Your task to perform on an android device: Go to network settings Image 0: 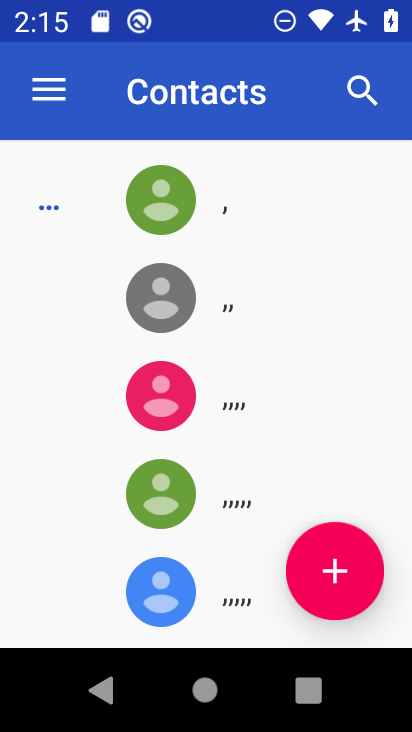
Step 0: press home button
Your task to perform on an android device: Go to network settings Image 1: 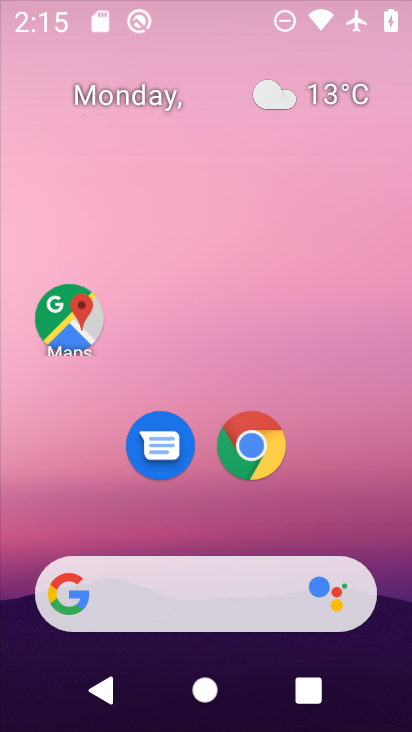
Step 1: drag from (394, 644) to (323, 143)
Your task to perform on an android device: Go to network settings Image 2: 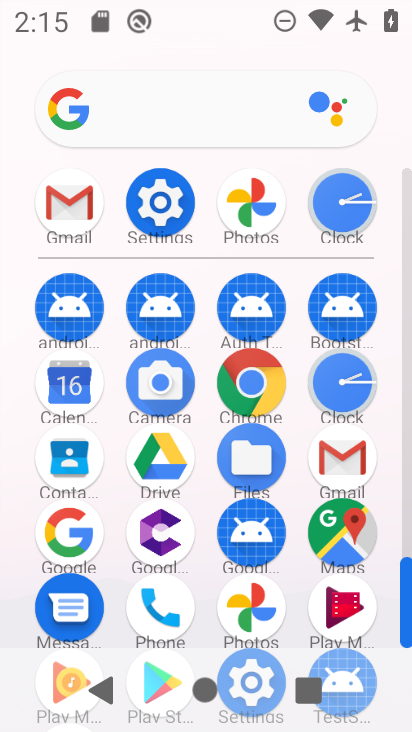
Step 2: click (129, 215)
Your task to perform on an android device: Go to network settings Image 3: 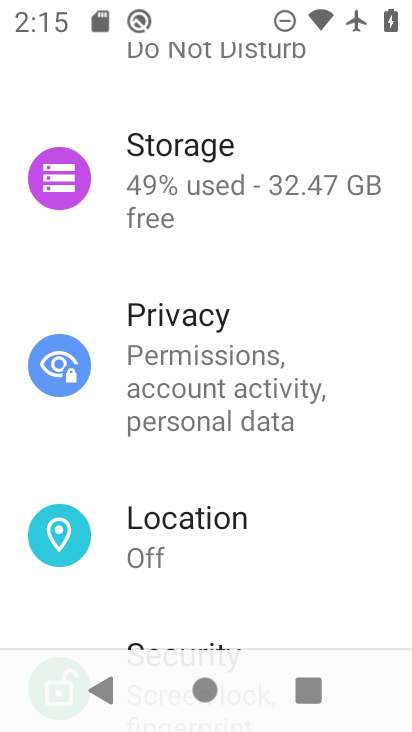
Step 3: drag from (158, 210) to (232, 672)
Your task to perform on an android device: Go to network settings Image 4: 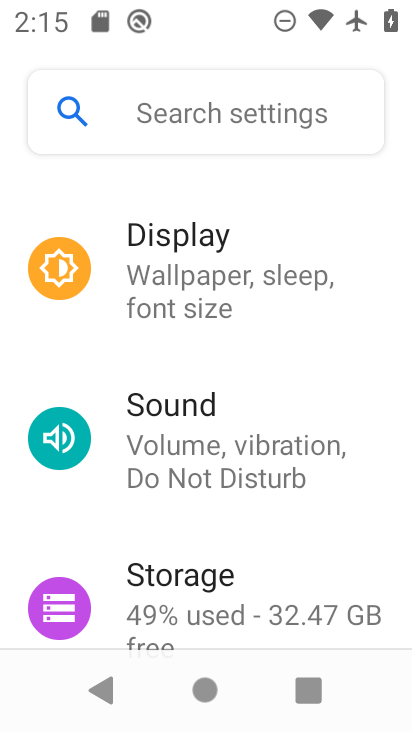
Step 4: drag from (250, 279) to (248, 707)
Your task to perform on an android device: Go to network settings Image 5: 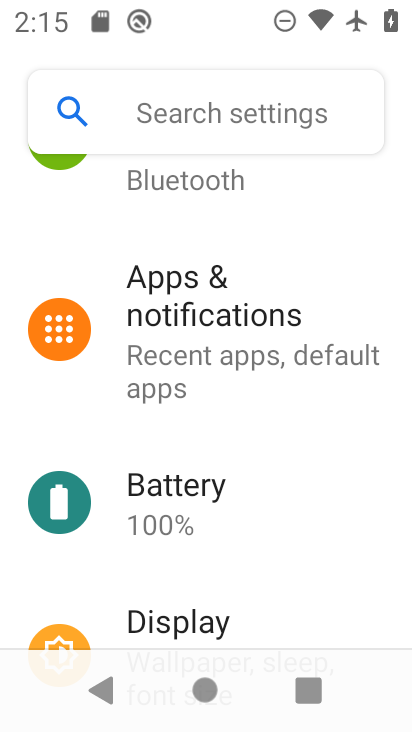
Step 5: drag from (152, 301) to (214, 650)
Your task to perform on an android device: Go to network settings Image 6: 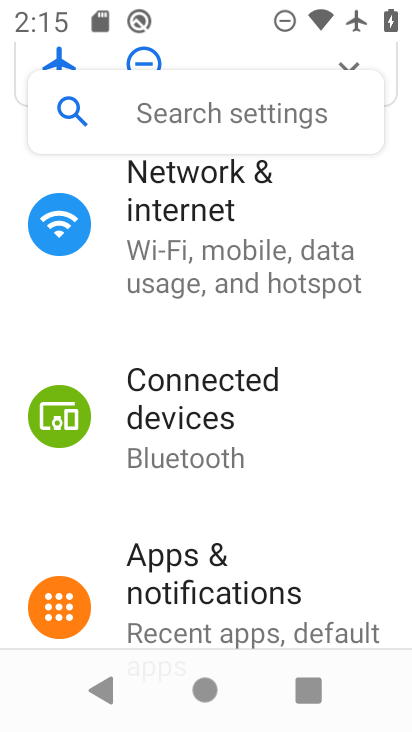
Step 6: click (239, 225)
Your task to perform on an android device: Go to network settings Image 7: 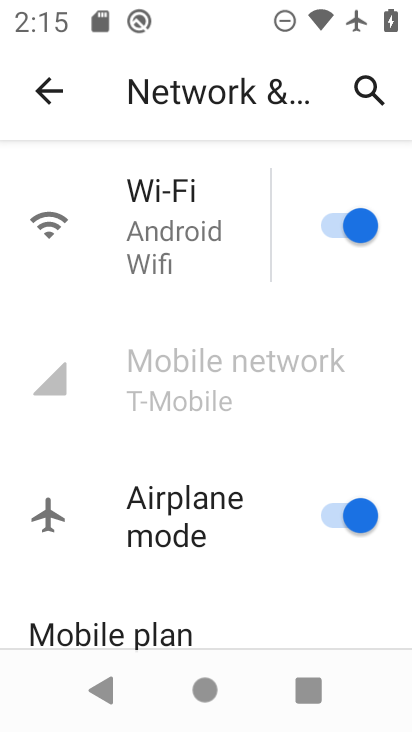
Step 7: click (208, 230)
Your task to perform on an android device: Go to network settings Image 8: 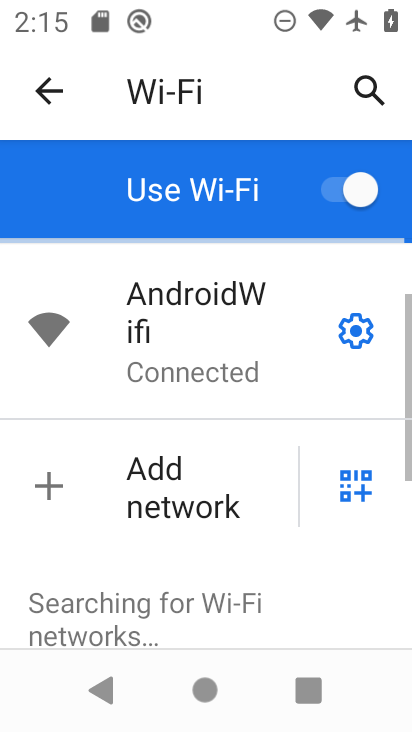
Step 8: task complete